Your task to perform on an android device: open sync settings in chrome Image 0: 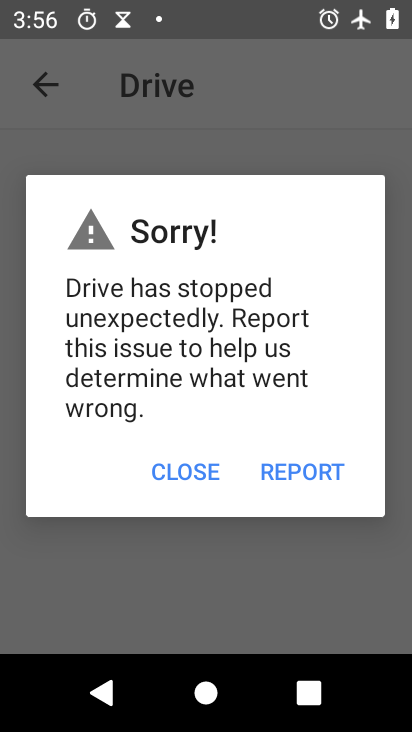
Step 0: press home button
Your task to perform on an android device: open sync settings in chrome Image 1: 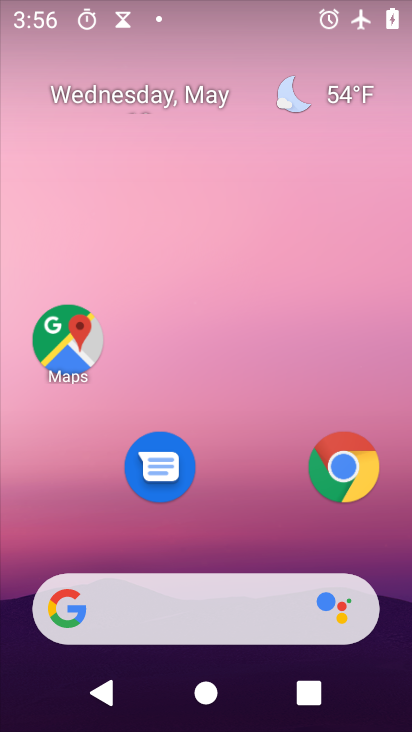
Step 1: drag from (237, 510) to (190, 148)
Your task to perform on an android device: open sync settings in chrome Image 2: 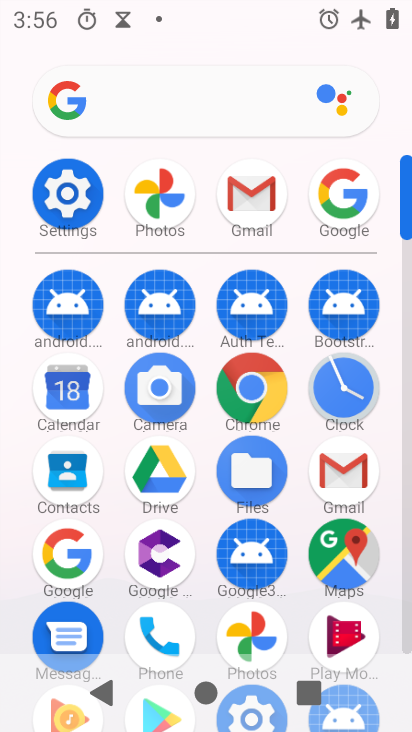
Step 2: click (270, 385)
Your task to perform on an android device: open sync settings in chrome Image 3: 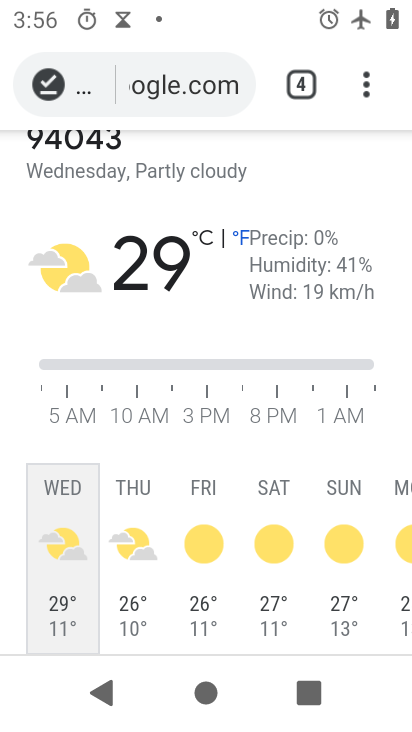
Step 3: click (371, 100)
Your task to perform on an android device: open sync settings in chrome Image 4: 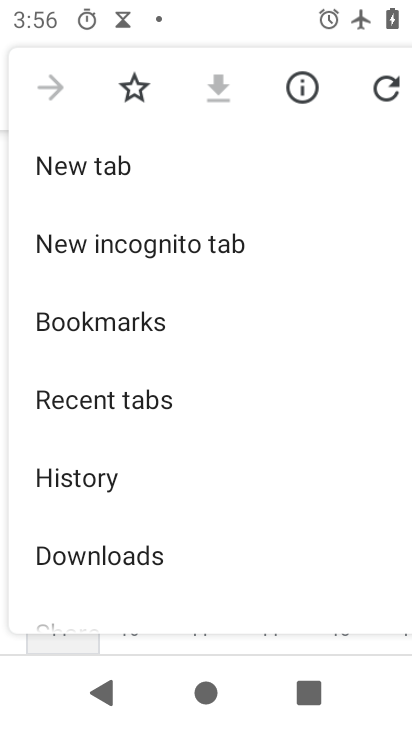
Step 4: drag from (278, 624) to (225, 232)
Your task to perform on an android device: open sync settings in chrome Image 5: 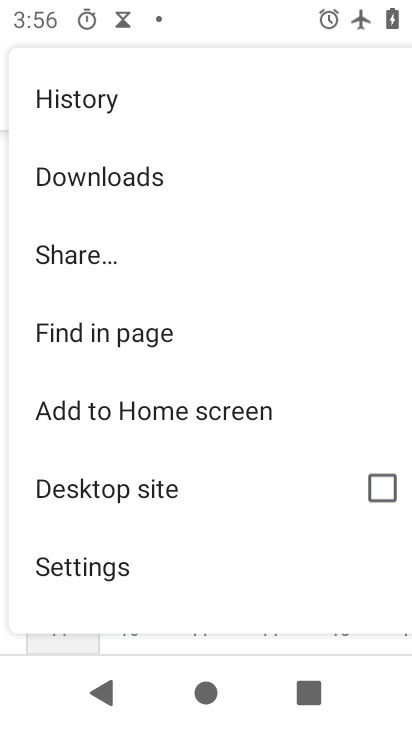
Step 5: click (197, 580)
Your task to perform on an android device: open sync settings in chrome Image 6: 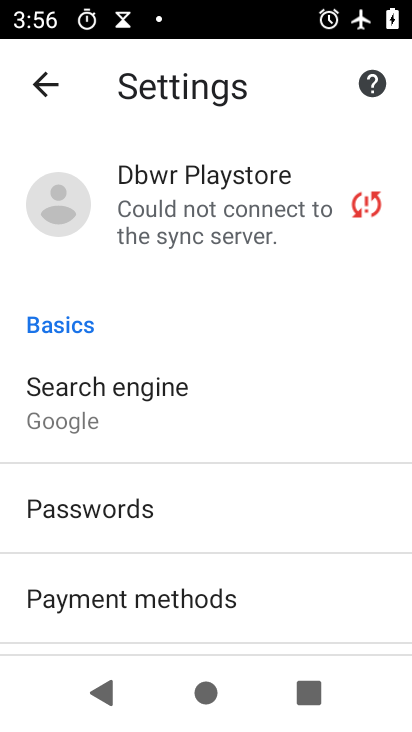
Step 6: click (206, 205)
Your task to perform on an android device: open sync settings in chrome Image 7: 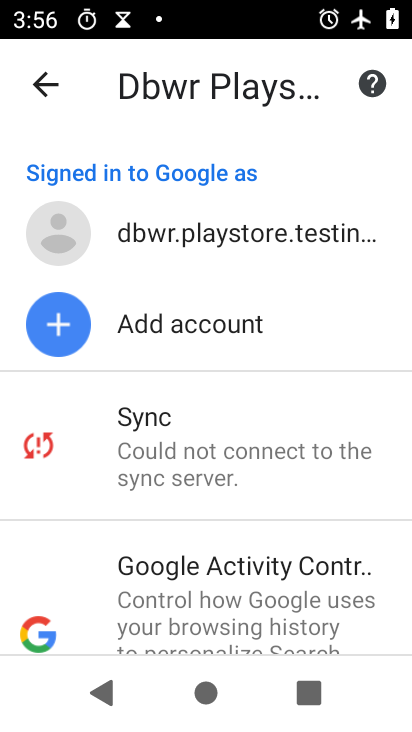
Step 7: click (273, 449)
Your task to perform on an android device: open sync settings in chrome Image 8: 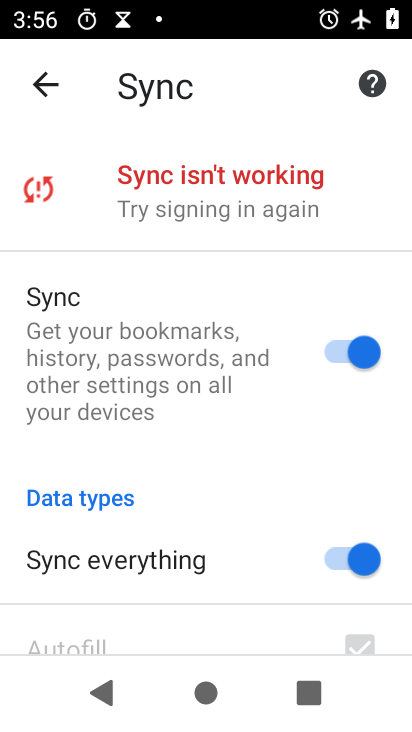
Step 8: task complete